Your task to perform on an android device: empty trash in the gmail app Image 0: 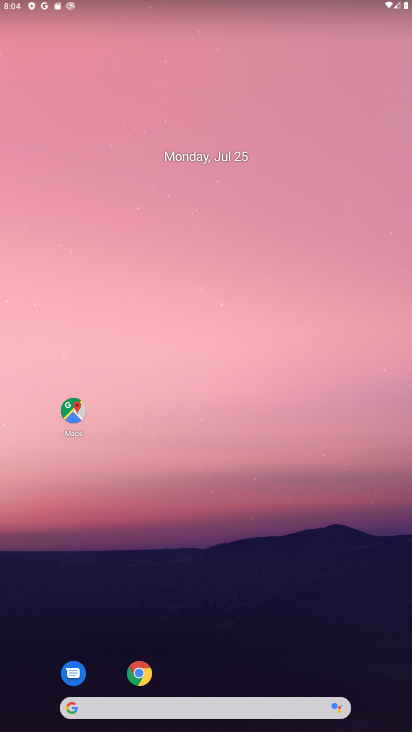
Step 0: drag from (256, 673) to (188, 162)
Your task to perform on an android device: empty trash in the gmail app Image 1: 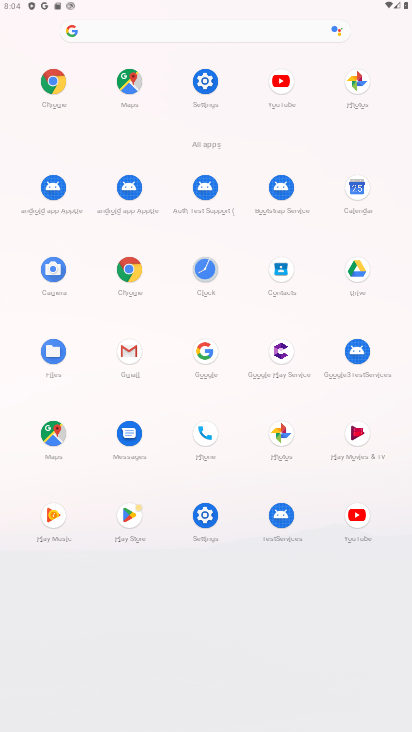
Step 1: click (134, 378)
Your task to perform on an android device: empty trash in the gmail app Image 2: 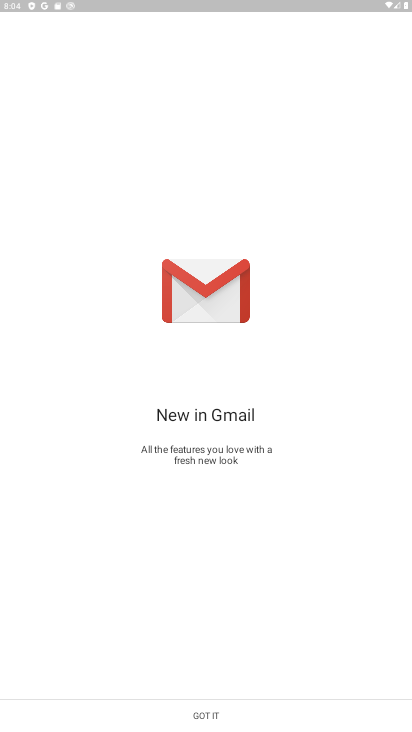
Step 2: task complete